Your task to perform on an android device: Open display settings Image 0: 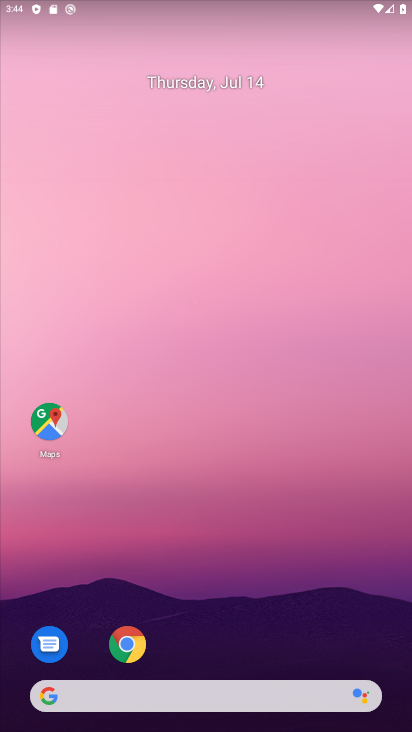
Step 0: press home button
Your task to perform on an android device: Open display settings Image 1: 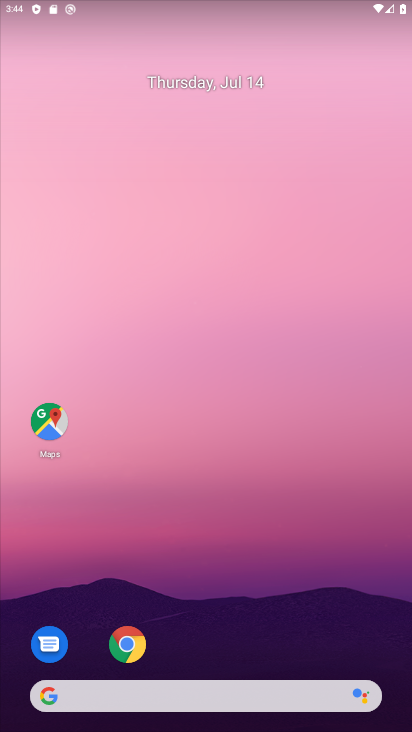
Step 1: drag from (370, 650) to (310, 297)
Your task to perform on an android device: Open display settings Image 2: 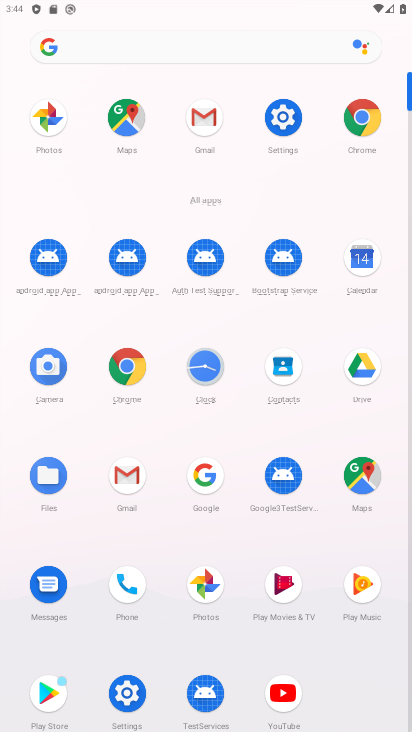
Step 2: click (295, 131)
Your task to perform on an android device: Open display settings Image 3: 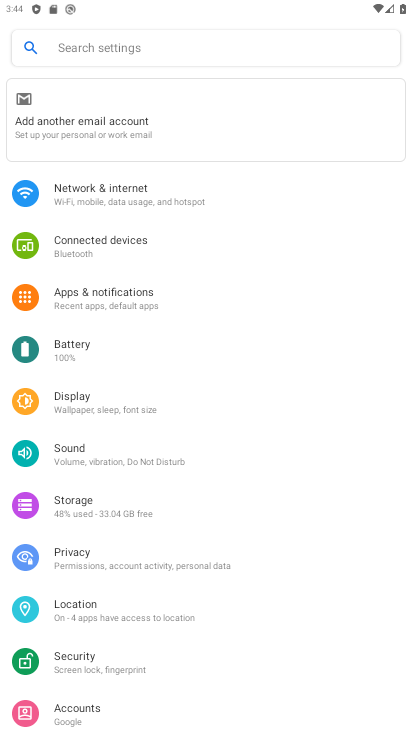
Step 3: click (69, 396)
Your task to perform on an android device: Open display settings Image 4: 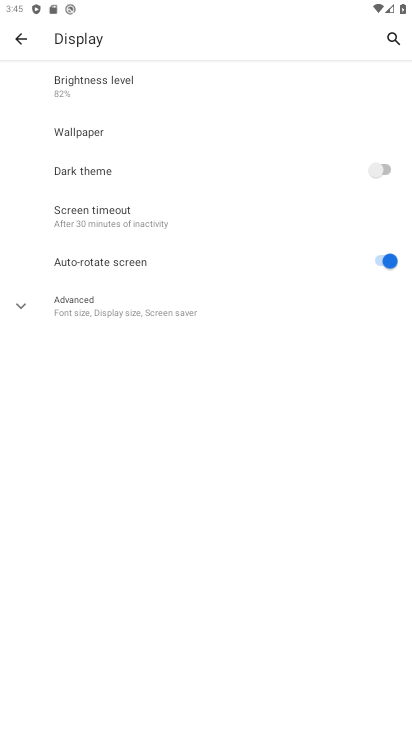
Step 4: task complete